Your task to perform on an android device: Open the stopwatch Image 0: 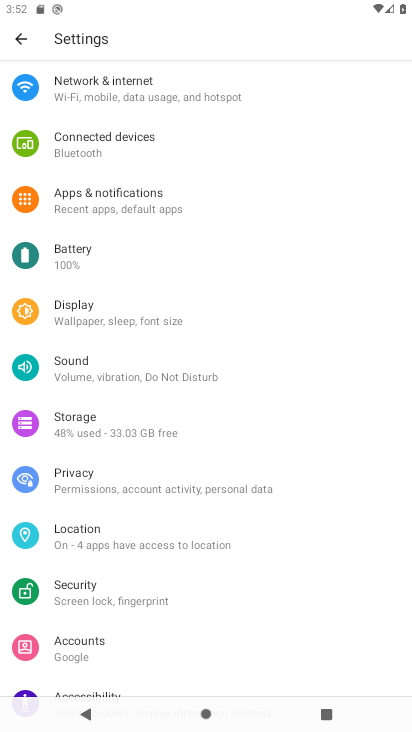
Step 0: press home button
Your task to perform on an android device: Open the stopwatch Image 1: 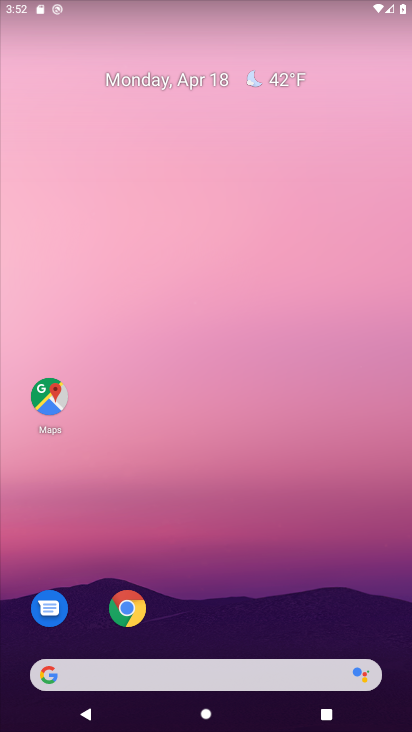
Step 1: drag from (284, 140) to (268, 24)
Your task to perform on an android device: Open the stopwatch Image 2: 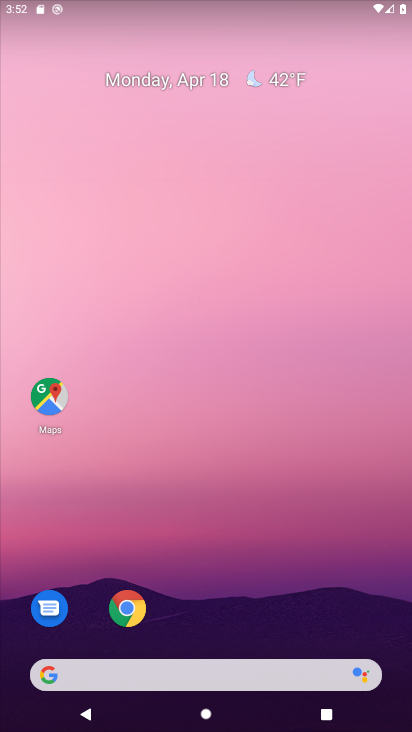
Step 2: drag from (382, 589) to (317, 39)
Your task to perform on an android device: Open the stopwatch Image 3: 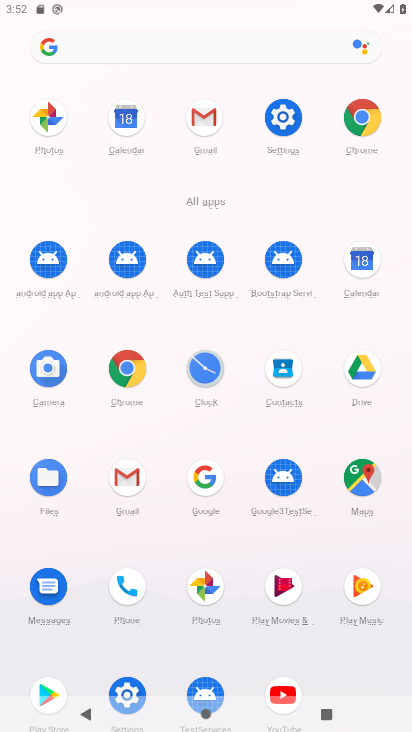
Step 3: click (211, 380)
Your task to perform on an android device: Open the stopwatch Image 4: 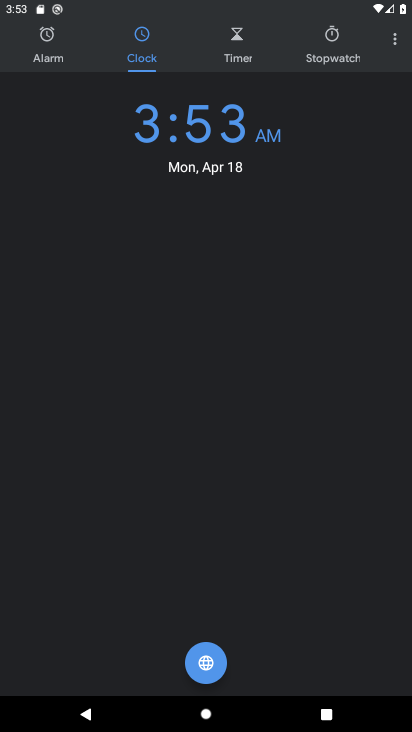
Step 4: click (327, 39)
Your task to perform on an android device: Open the stopwatch Image 5: 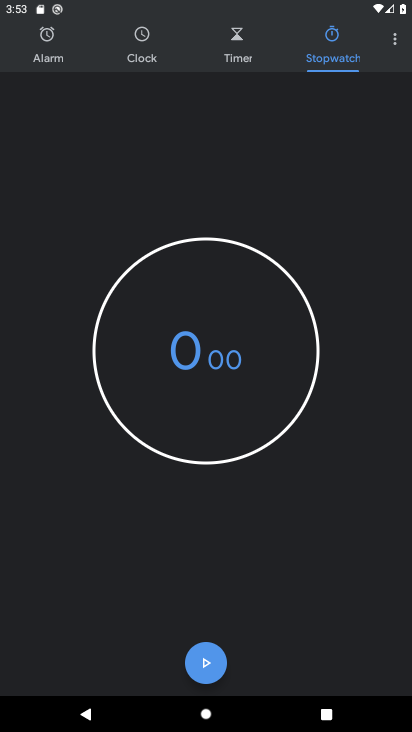
Step 5: click (210, 657)
Your task to perform on an android device: Open the stopwatch Image 6: 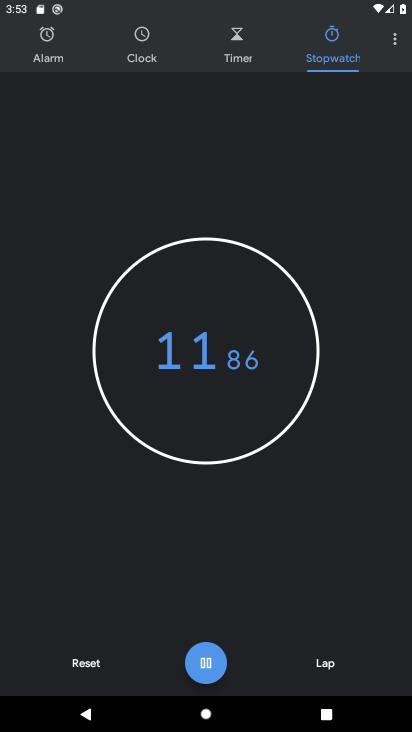
Step 6: task complete